Your task to perform on an android device: Open calendar and show me the first week of next month Image 0: 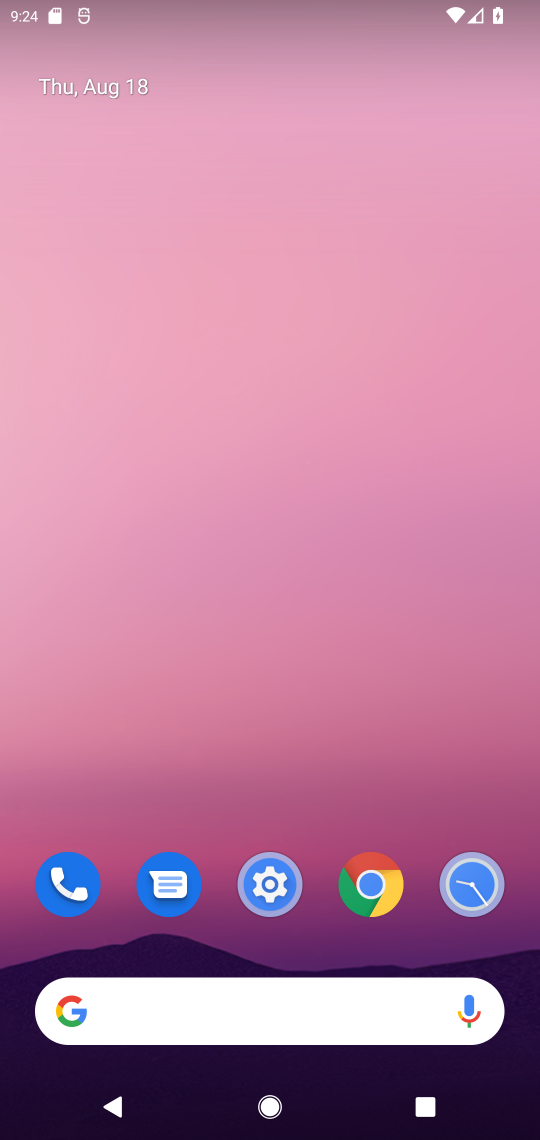
Step 0: click (120, 94)
Your task to perform on an android device: Open calendar and show me the first week of next month Image 1: 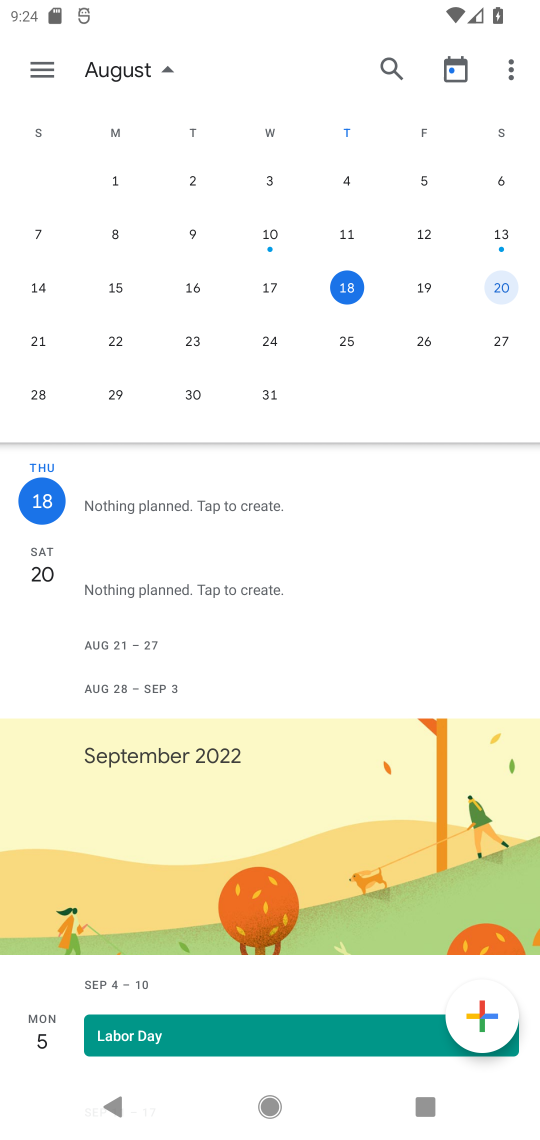
Step 1: click (341, 177)
Your task to perform on an android device: Open calendar and show me the first week of next month Image 2: 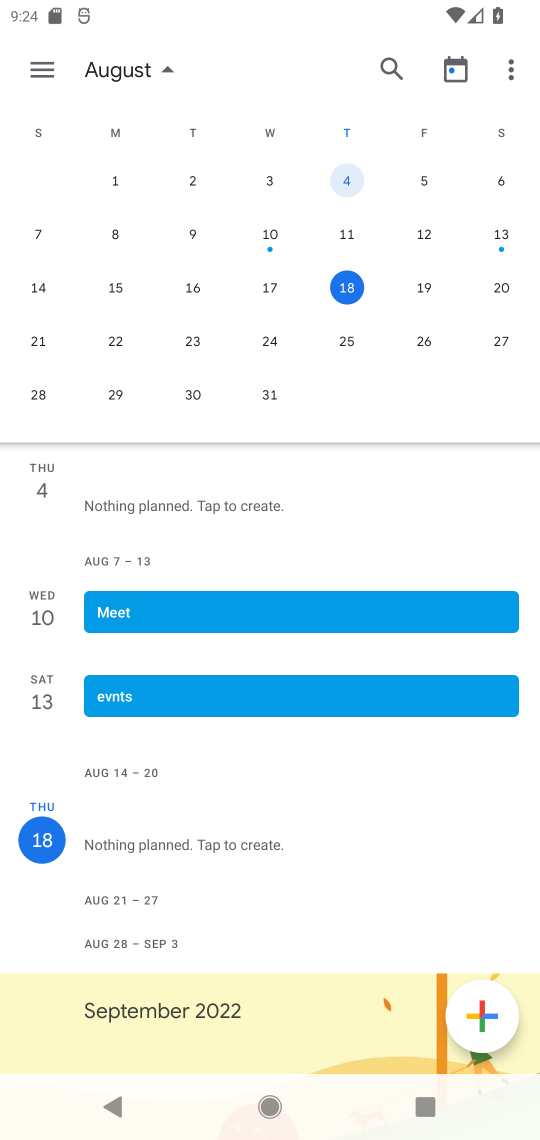
Step 2: click (341, 177)
Your task to perform on an android device: Open calendar and show me the first week of next month Image 3: 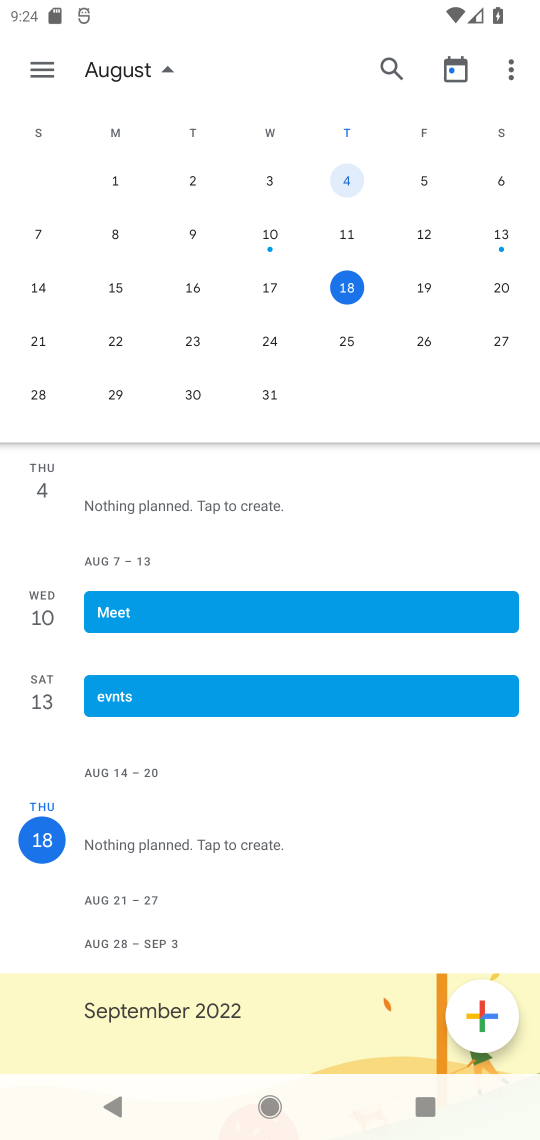
Step 3: drag from (399, 380) to (16, 343)
Your task to perform on an android device: Open calendar and show me the first week of next month Image 4: 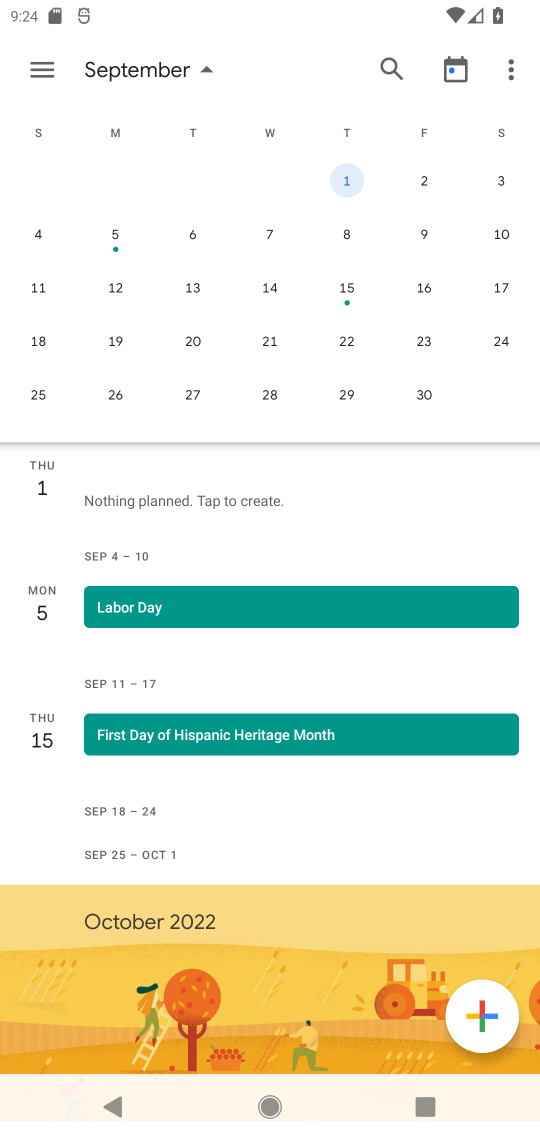
Step 4: click (424, 175)
Your task to perform on an android device: Open calendar and show me the first week of next month Image 5: 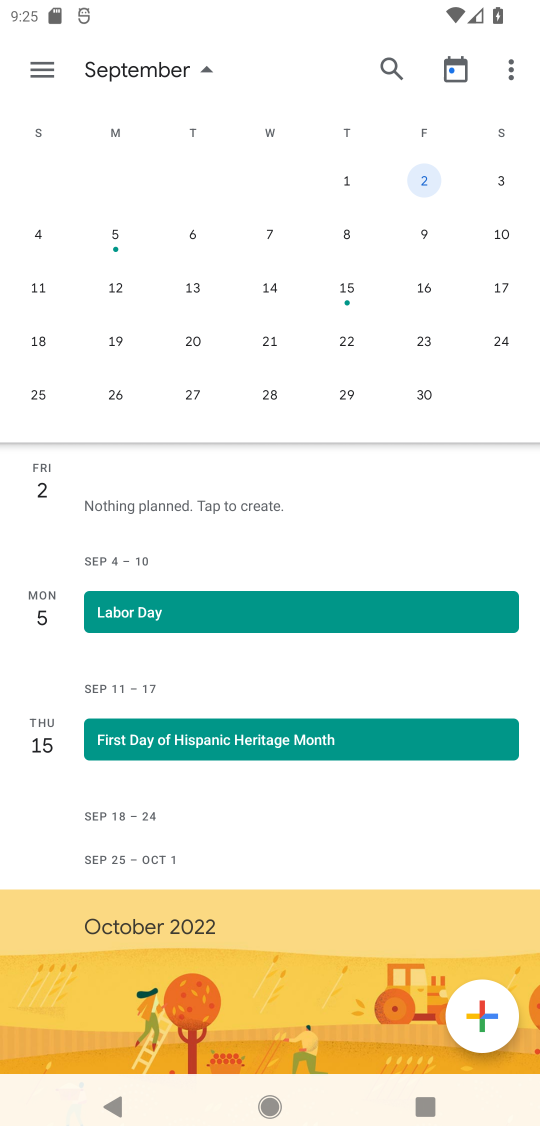
Step 5: task complete